Your task to perform on an android device: toggle javascript in the chrome app Image 0: 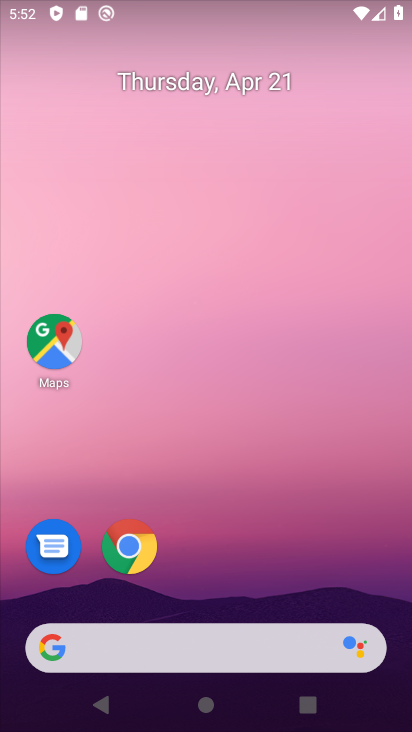
Step 0: click (141, 543)
Your task to perform on an android device: toggle javascript in the chrome app Image 1: 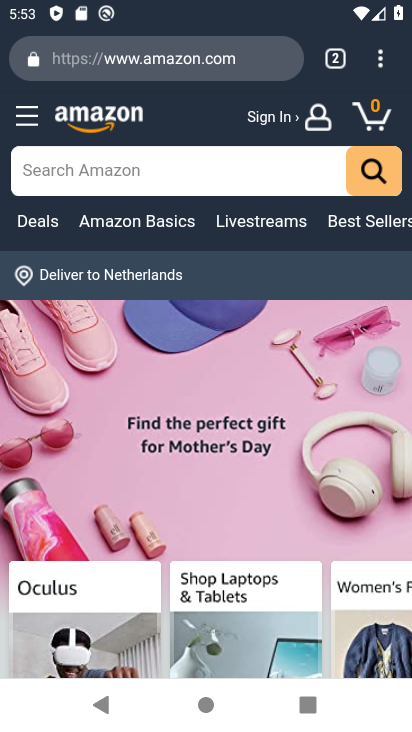
Step 1: click (386, 52)
Your task to perform on an android device: toggle javascript in the chrome app Image 2: 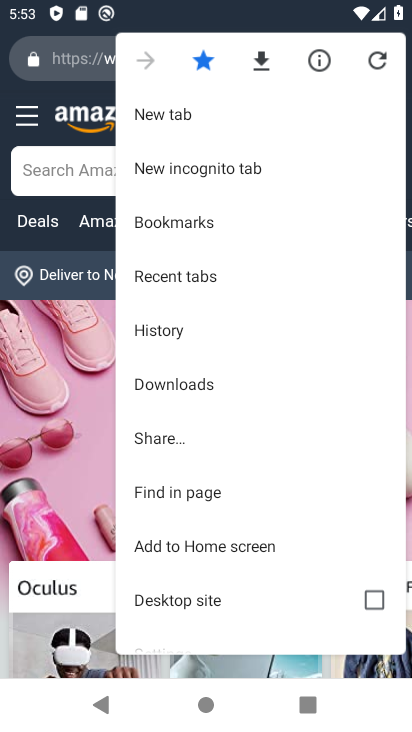
Step 2: drag from (221, 511) to (164, 99)
Your task to perform on an android device: toggle javascript in the chrome app Image 3: 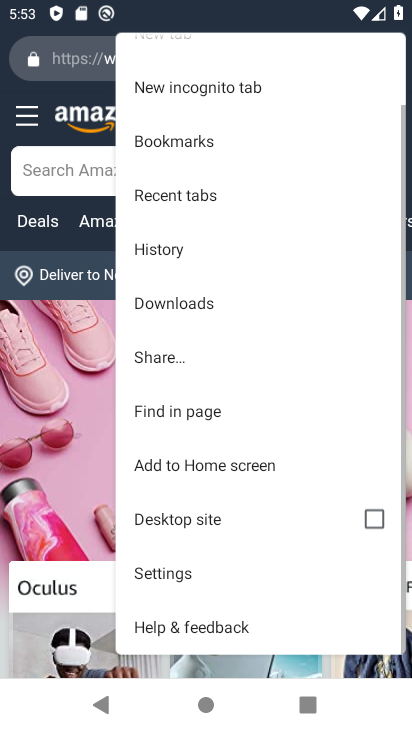
Step 3: click (203, 565)
Your task to perform on an android device: toggle javascript in the chrome app Image 4: 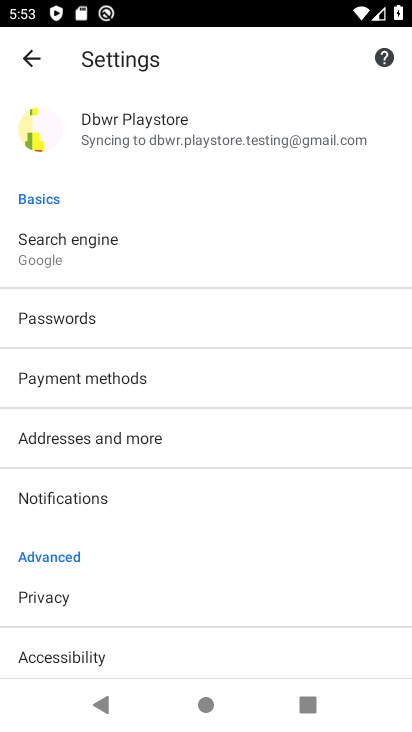
Step 4: click (182, 550)
Your task to perform on an android device: toggle javascript in the chrome app Image 5: 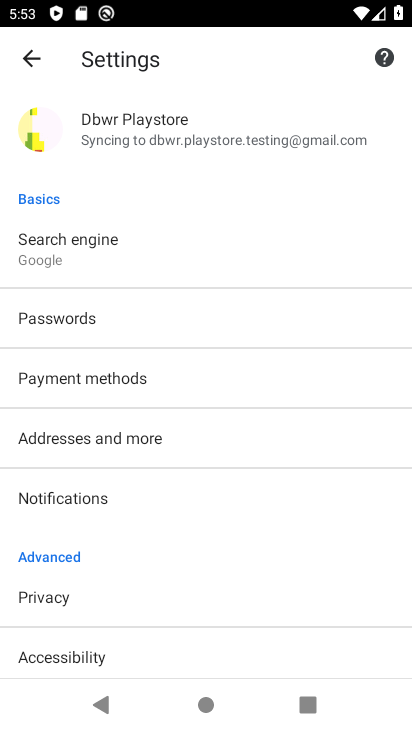
Step 5: drag from (148, 610) to (158, 193)
Your task to perform on an android device: toggle javascript in the chrome app Image 6: 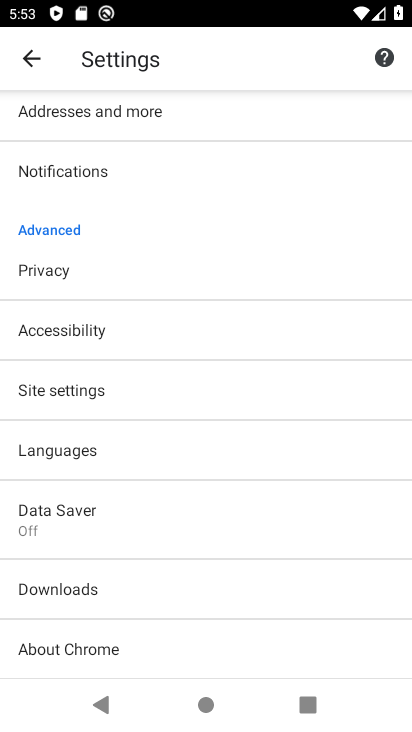
Step 6: click (96, 393)
Your task to perform on an android device: toggle javascript in the chrome app Image 7: 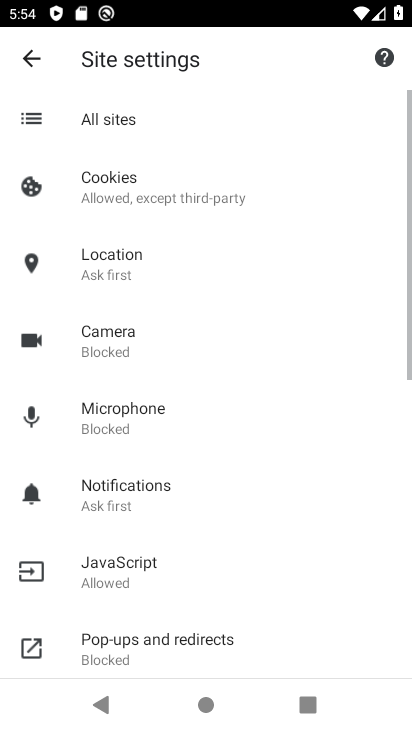
Step 7: drag from (268, 600) to (269, 213)
Your task to perform on an android device: toggle javascript in the chrome app Image 8: 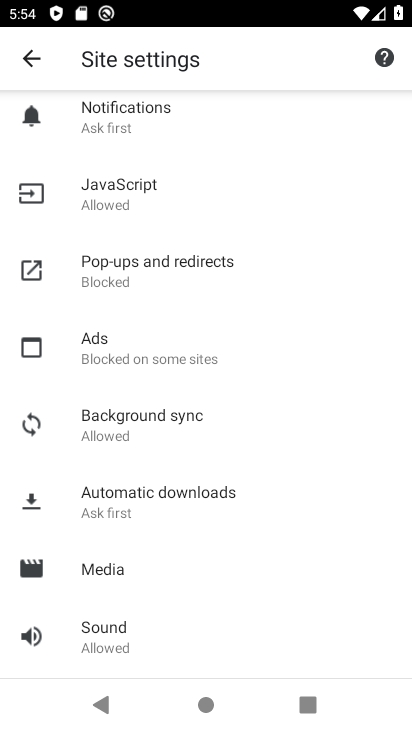
Step 8: click (118, 181)
Your task to perform on an android device: toggle javascript in the chrome app Image 9: 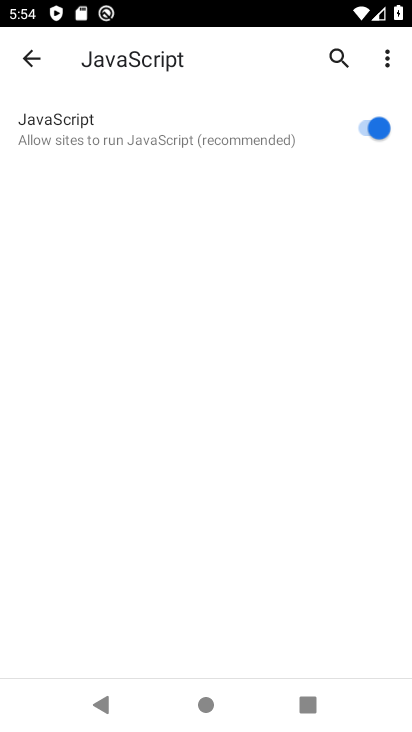
Step 9: click (382, 128)
Your task to perform on an android device: toggle javascript in the chrome app Image 10: 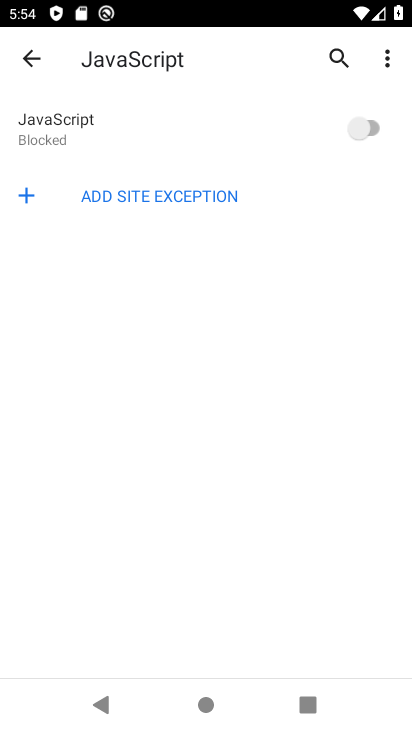
Step 10: task complete